Your task to perform on an android device: Open CNN.com Image 0: 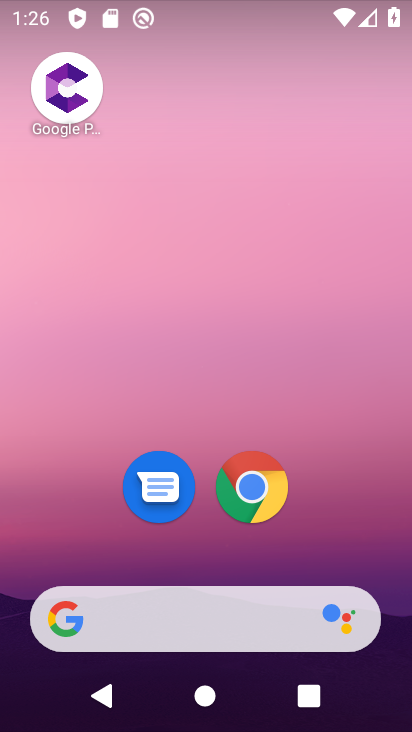
Step 0: click (159, 621)
Your task to perform on an android device: Open CNN.com Image 1: 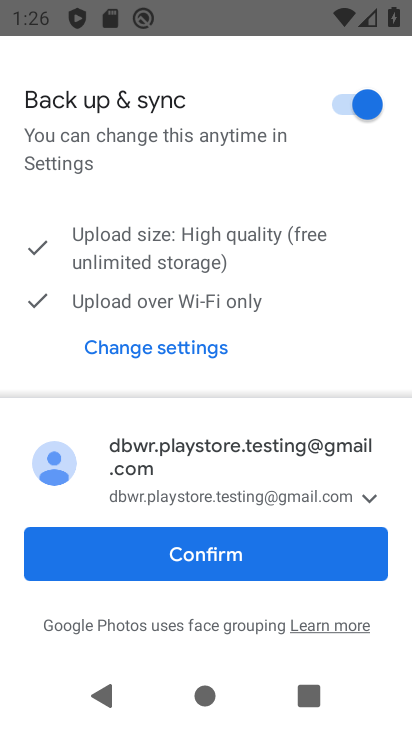
Step 1: press back button
Your task to perform on an android device: Open CNN.com Image 2: 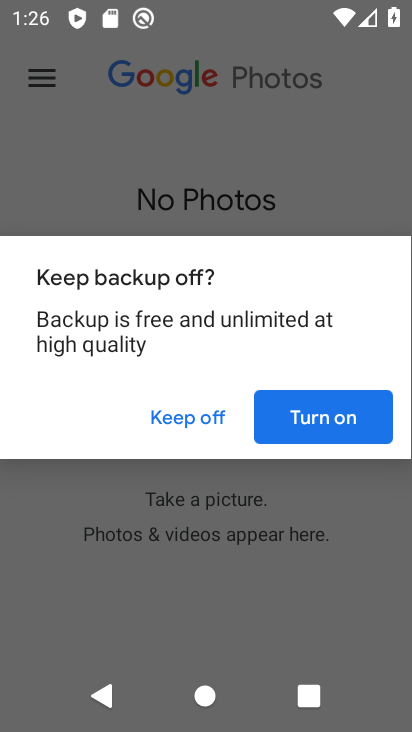
Step 2: press home button
Your task to perform on an android device: Open CNN.com Image 3: 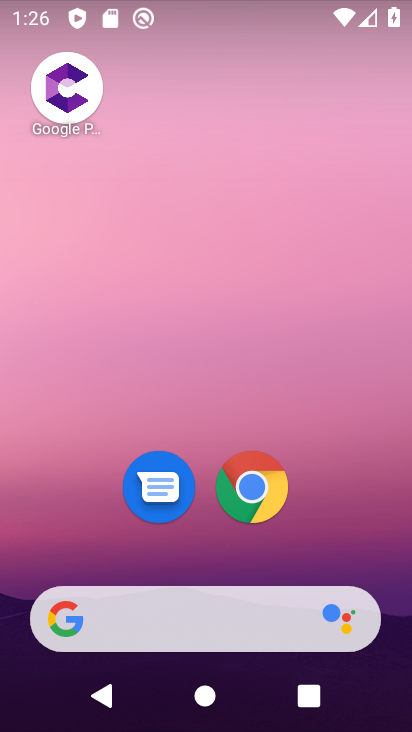
Step 3: click (203, 615)
Your task to perform on an android device: Open CNN.com Image 4: 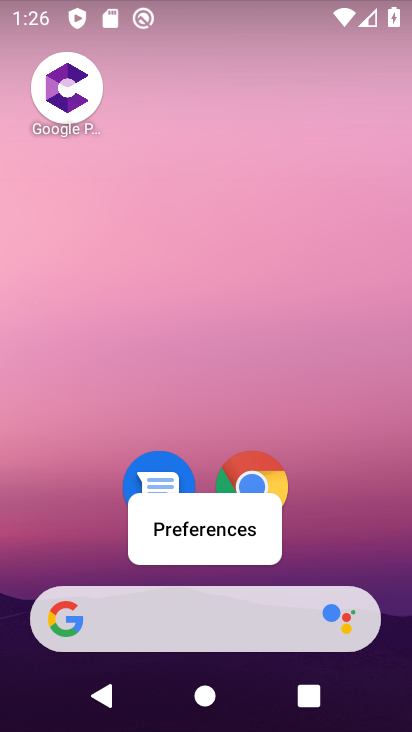
Step 4: click (203, 616)
Your task to perform on an android device: Open CNN.com Image 5: 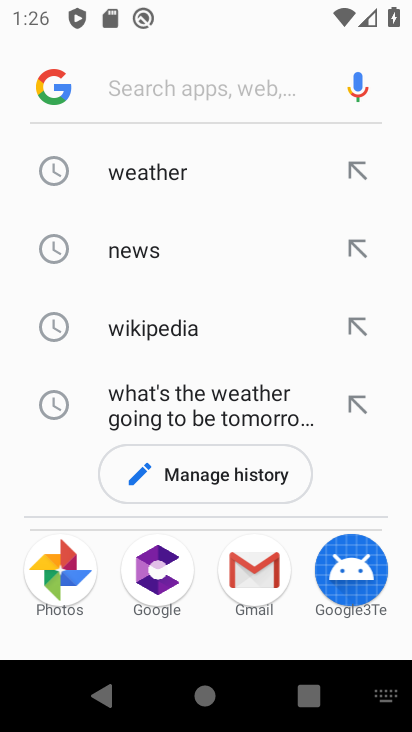
Step 5: type "CNN.com"
Your task to perform on an android device: Open CNN.com Image 6: 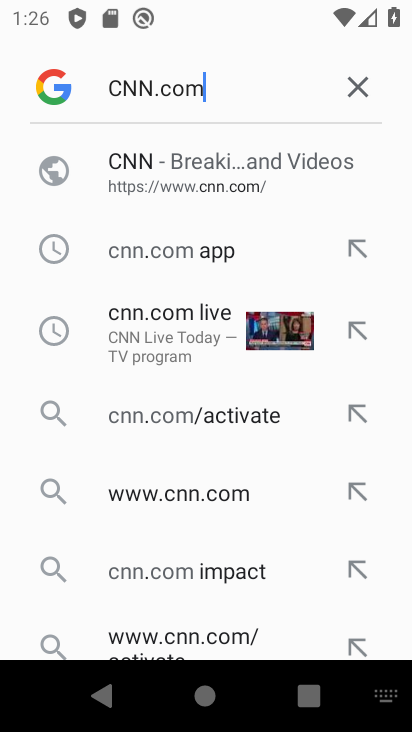
Step 6: click (185, 183)
Your task to perform on an android device: Open CNN.com Image 7: 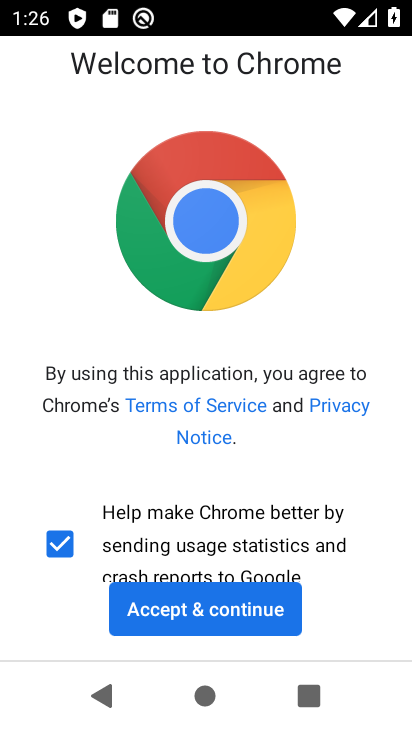
Step 7: click (170, 596)
Your task to perform on an android device: Open CNN.com Image 8: 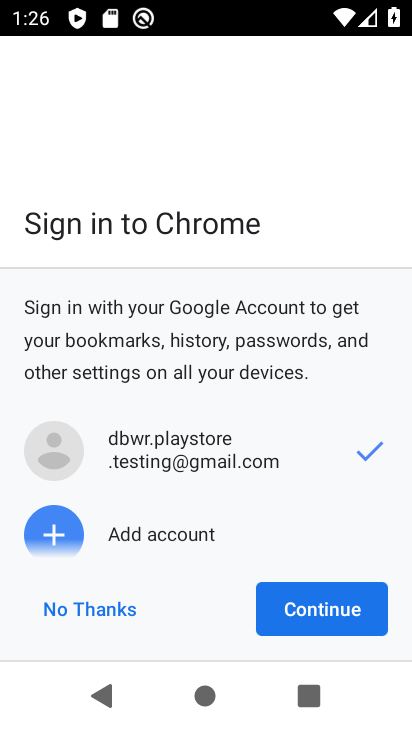
Step 8: click (322, 623)
Your task to perform on an android device: Open CNN.com Image 9: 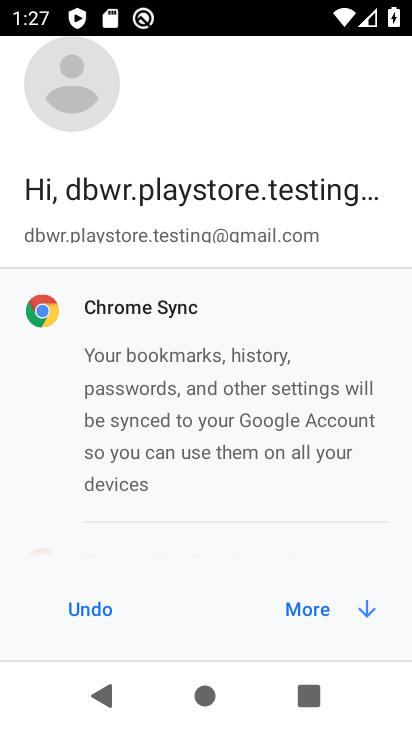
Step 9: click (338, 619)
Your task to perform on an android device: Open CNN.com Image 10: 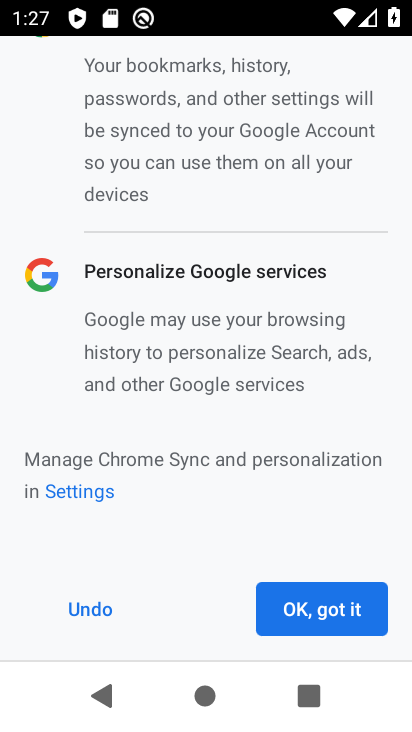
Step 10: click (338, 619)
Your task to perform on an android device: Open CNN.com Image 11: 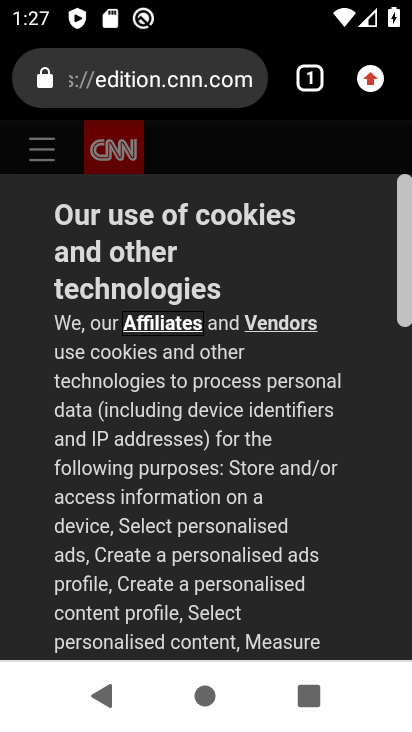
Step 11: drag from (166, 564) to (305, 175)
Your task to perform on an android device: Open CNN.com Image 12: 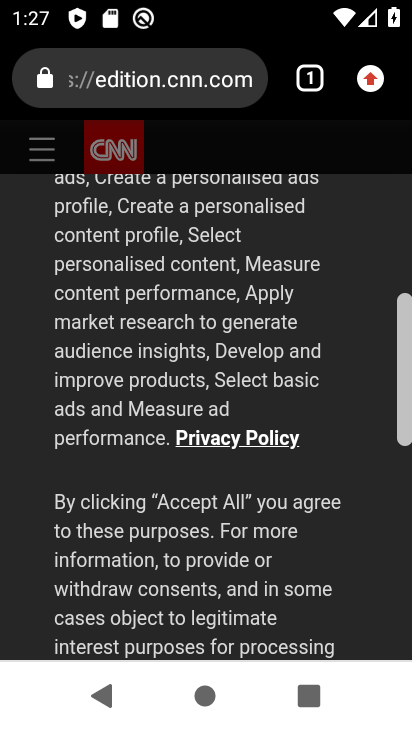
Step 12: drag from (191, 625) to (285, 196)
Your task to perform on an android device: Open CNN.com Image 13: 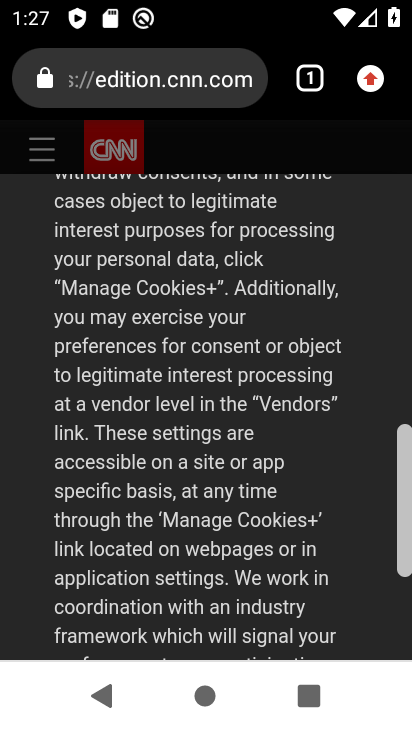
Step 13: drag from (239, 597) to (331, 166)
Your task to perform on an android device: Open CNN.com Image 14: 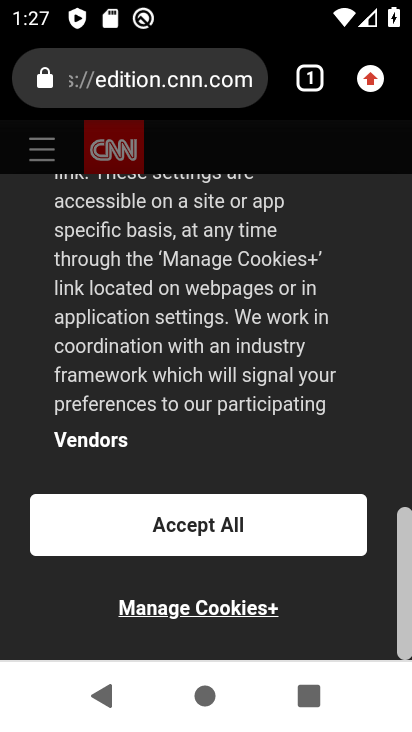
Step 14: click (288, 552)
Your task to perform on an android device: Open CNN.com Image 15: 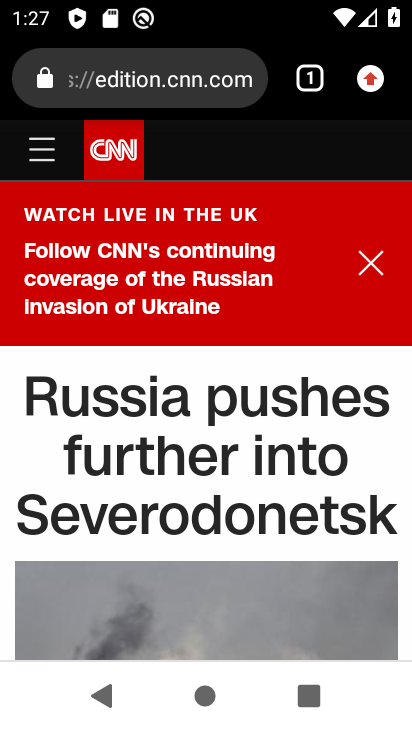
Step 15: task complete